Your task to perform on an android device: star an email in the gmail app Image 0: 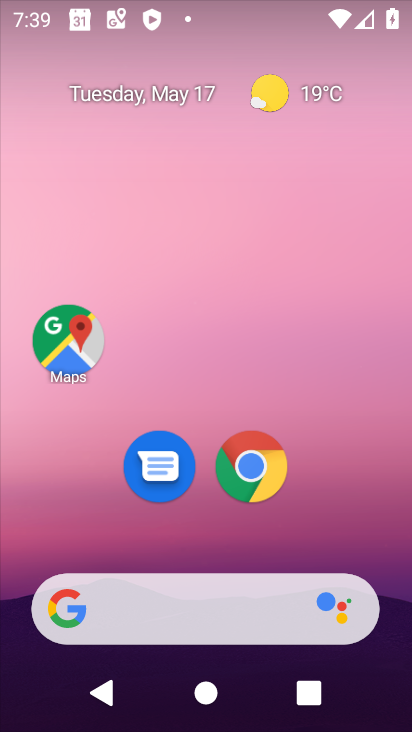
Step 0: drag from (204, 619) to (319, 108)
Your task to perform on an android device: star an email in the gmail app Image 1: 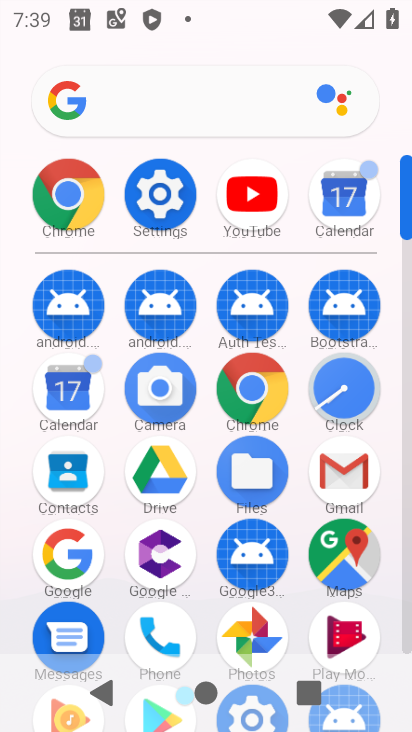
Step 1: click (339, 478)
Your task to perform on an android device: star an email in the gmail app Image 2: 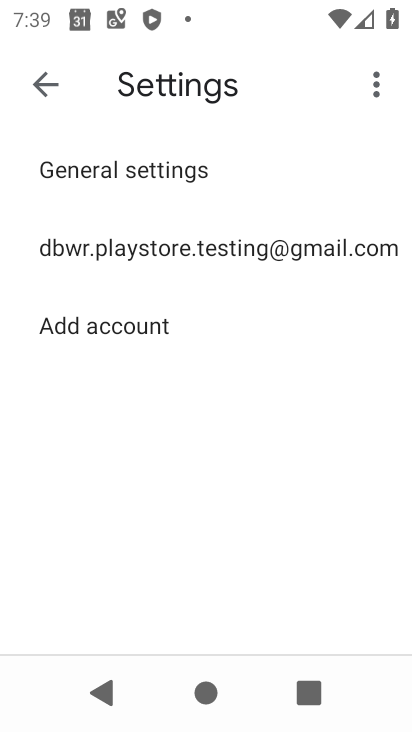
Step 2: click (50, 94)
Your task to perform on an android device: star an email in the gmail app Image 3: 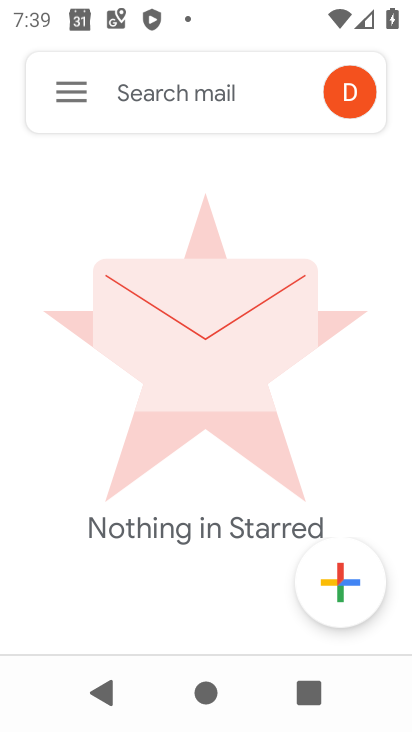
Step 3: task complete